Your task to perform on an android device: turn on sleep mode Image 0: 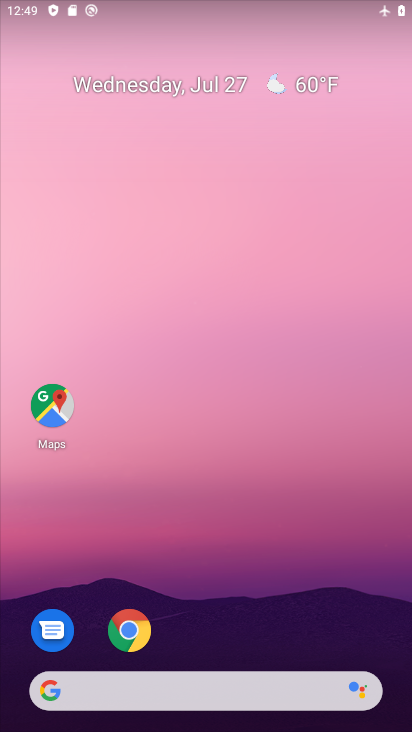
Step 0: press home button
Your task to perform on an android device: turn on sleep mode Image 1: 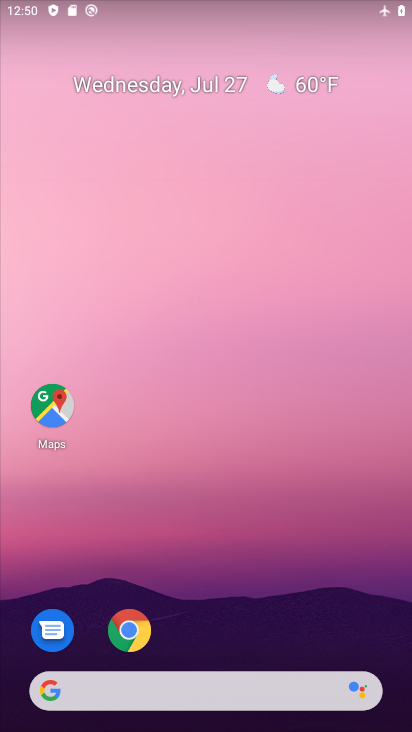
Step 1: drag from (235, 538) to (270, 86)
Your task to perform on an android device: turn on sleep mode Image 2: 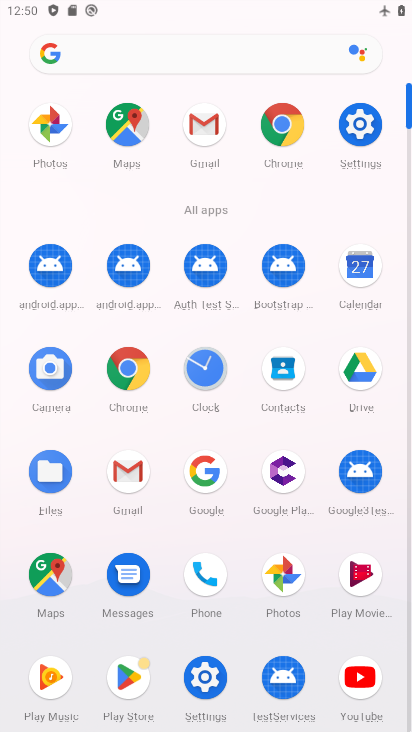
Step 2: click (367, 124)
Your task to perform on an android device: turn on sleep mode Image 3: 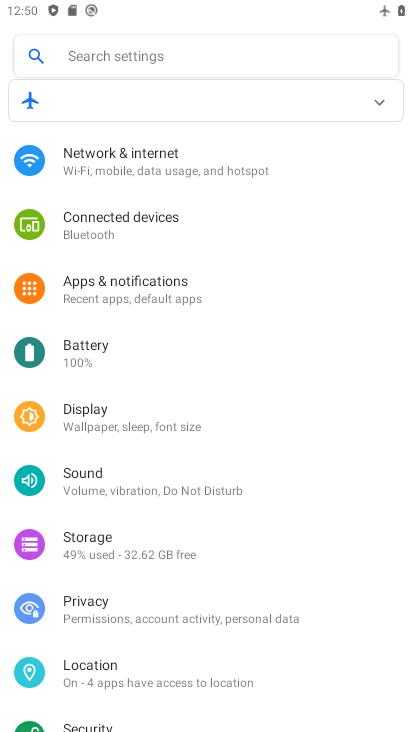
Step 3: click (76, 421)
Your task to perform on an android device: turn on sleep mode Image 4: 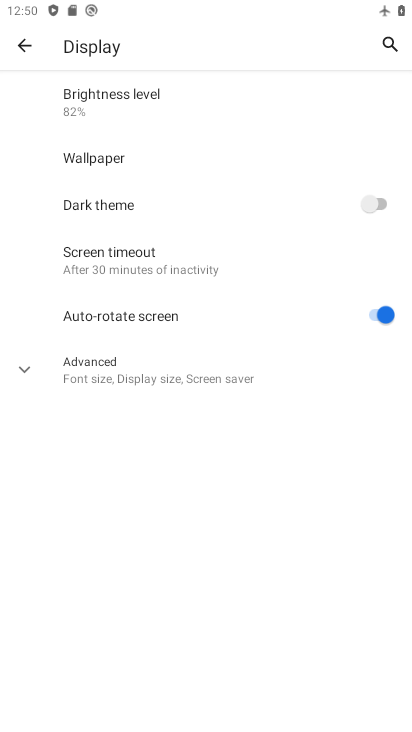
Step 4: task complete